Your task to perform on an android device: Open calendar and show me the fourth week of next month Image 0: 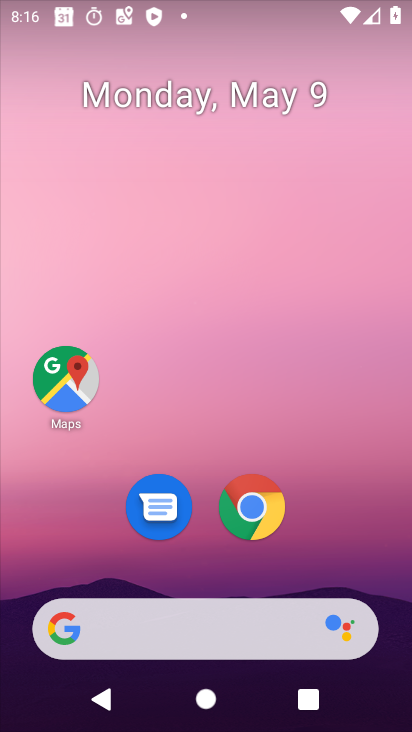
Step 0: click (314, 170)
Your task to perform on an android device: Open calendar and show me the fourth week of next month Image 1: 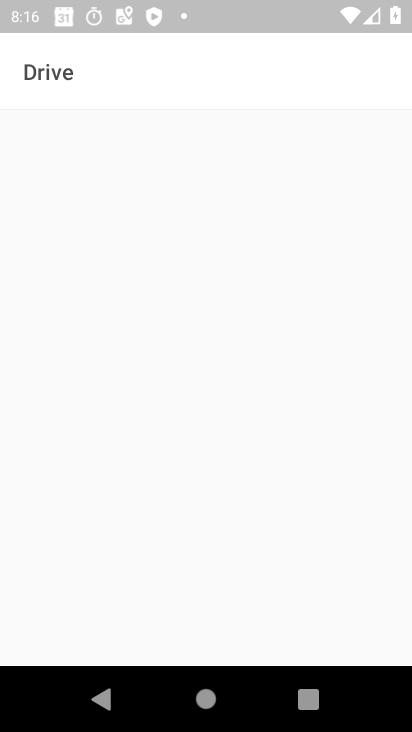
Step 1: press home button
Your task to perform on an android device: Open calendar and show me the fourth week of next month Image 2: 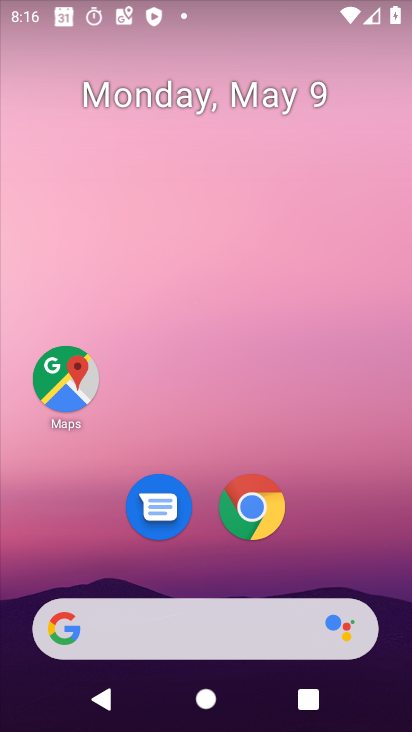
Step 2: drag from (237, 663) to (308, 152)
Your task to perform on an android device: Open calendar and show me the fourth week of next month Image 3: 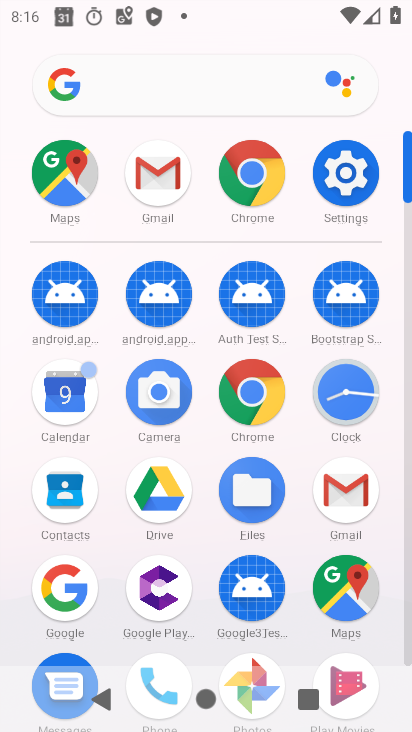
Step 3: click (71, 403)
Your task to perform on an android device: Open calendar and show me the fourth week of next month Image 4: 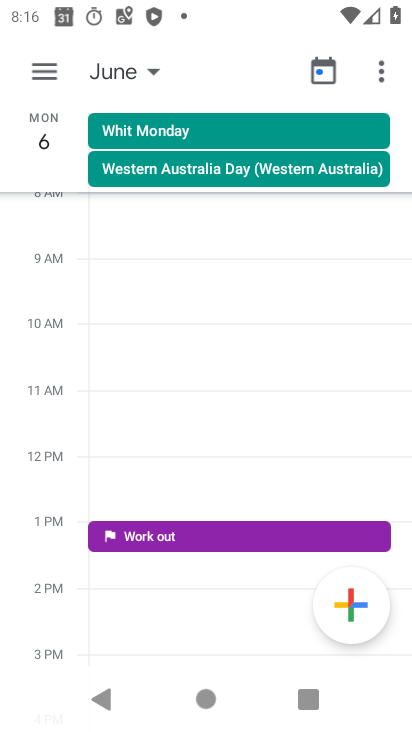
Step 4: click (49, 69)
Your task to perform on an android device: Open calendar and show me the fourth week of next month Image 5: 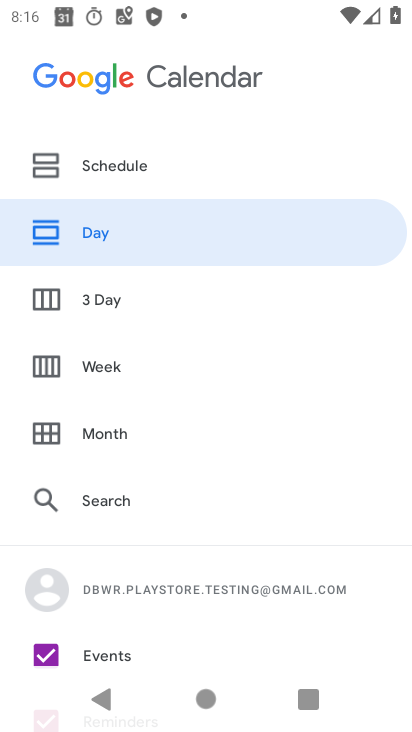
Step 5: click (99, 429)
Your task to perform on an android device: Open calendar and show me the fourth week of next month Image 6: 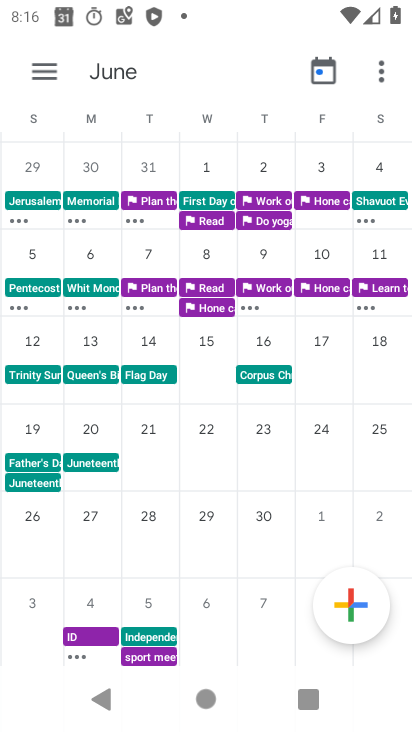
Step 6: click (101, 433)
Your task to perform on an android device: Open calendar and show me the fourth week of next month Image 7: 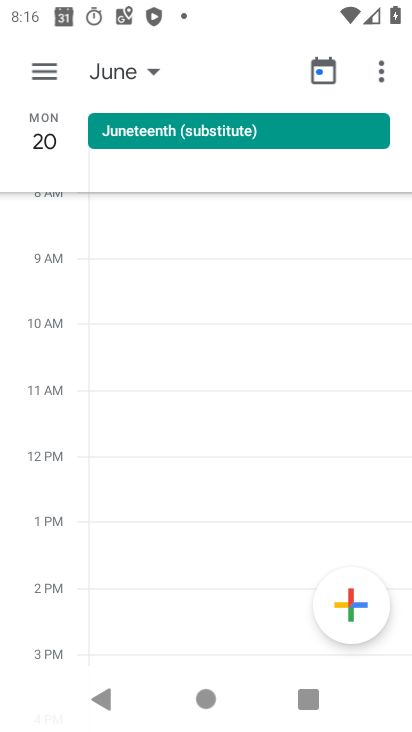
Step 7: task complete